Your task to perform on an android device: manage bookmarks in the chrome app Image 0: 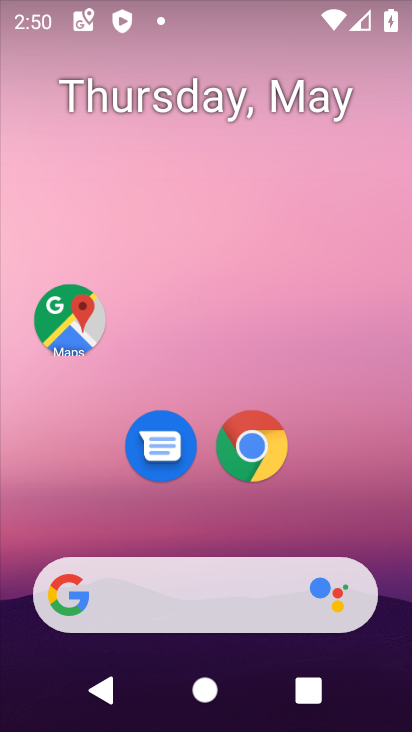
Step 0: click (255, 453)
Your task to perform on an android device: manage bookmarks in the chrome app Image 1: 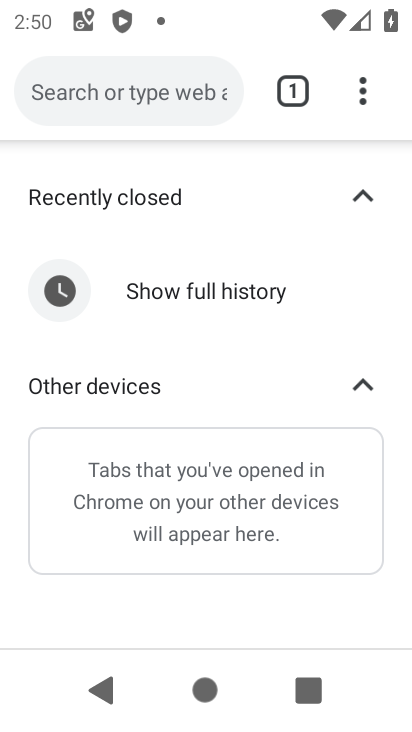
Step 1: click (355, 90)
Your task to perform on an android device: manage bookmarks in the chrome app Image 2: 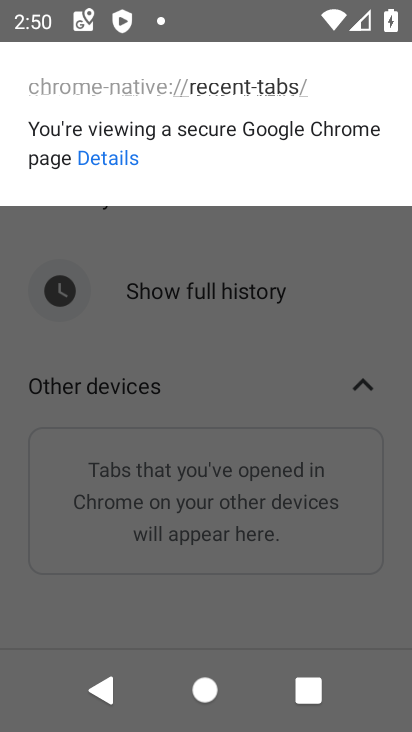
Step 2: click (323, 279)
Your task to perform on an android device: manage bookmarks in the chrome app Image 3: 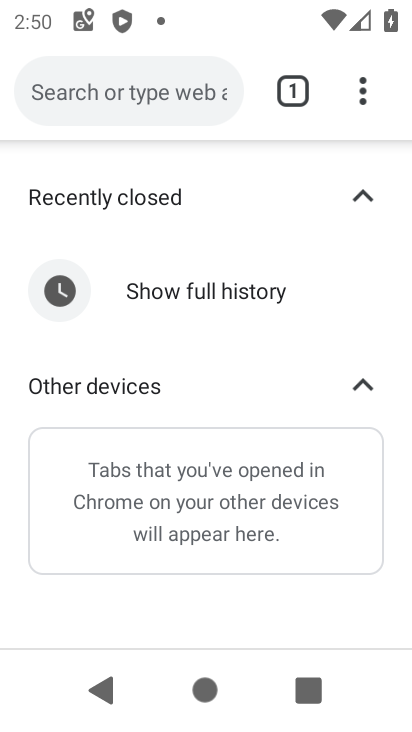
Step 3: click (377, 74)
Your task to perform on an android device: manage bookmarks in the chrome app Image 4: 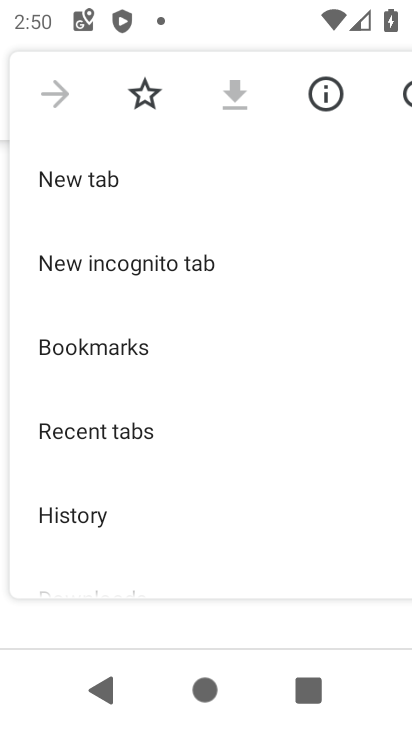
Step 4: drag from (178, 551) to (178, 441)
Your task to perform on an android device: manage bookmarks in the chrome app Image 5: 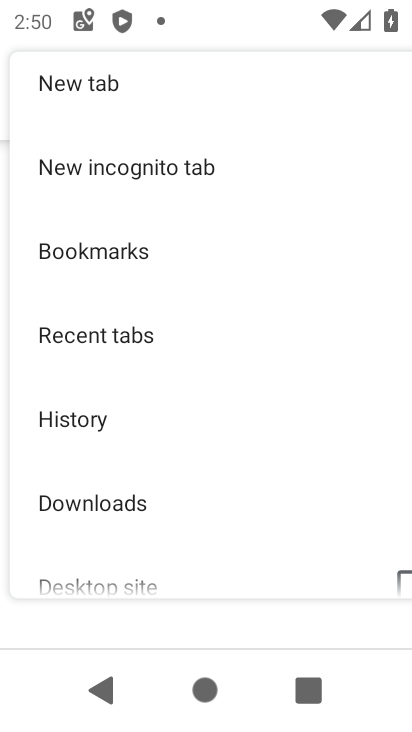
Step 5: click (107, 241)
Your task to perform on an android device: manage bookmarks in the chrome app Image 6: 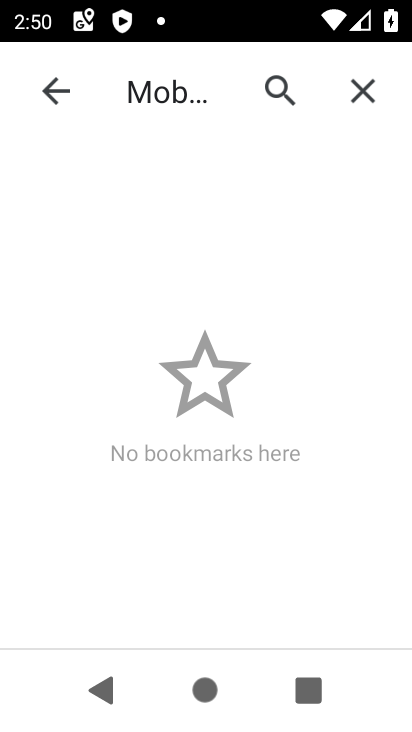
Step 6: click (385, 90)
Your task to perform on an android device: manage bookmarks in the chrome app Image 7: 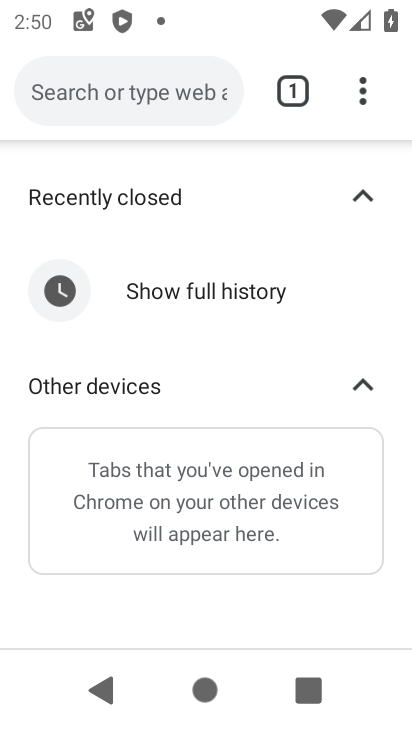
Step 7: click (370, 93)
Your task to perform on an android device: manage bookmarks in the chrome app Image 8: 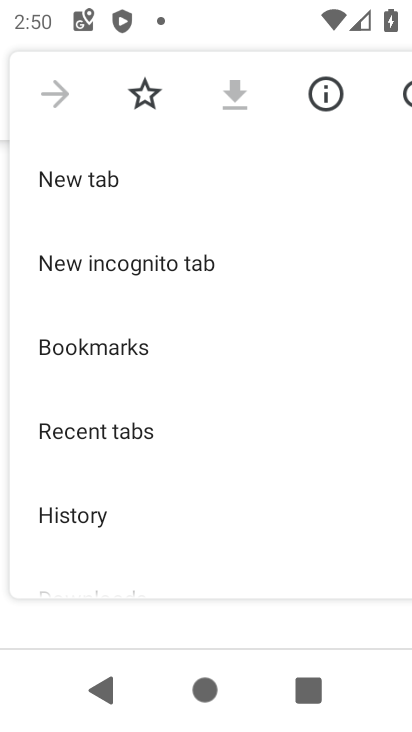
Step 8: click (142, 97)
Your task to perform on an android device: manage bookmarks in the chrome app Image 9: 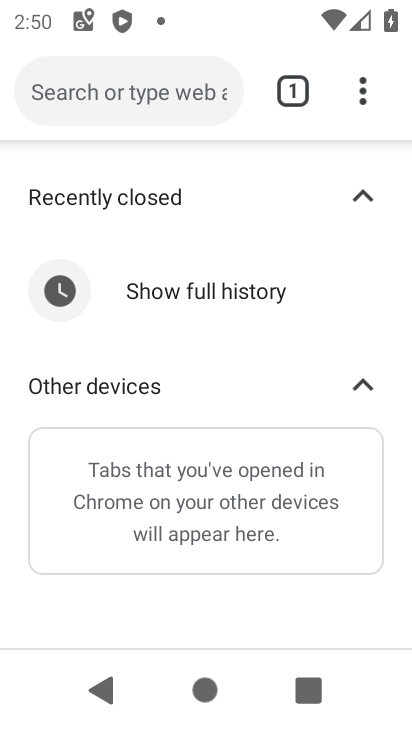
Step 9: task complete